Your task to perform on an android device: See recent photos Image 0: 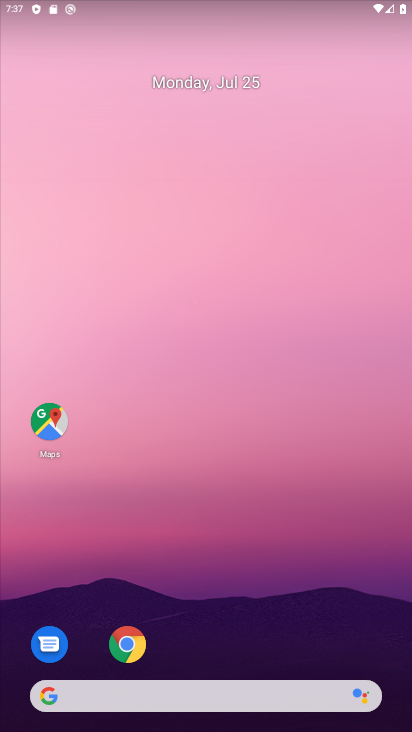
Step 0: drag from (200, 632) to (205, 14)
Your task to perform on an android device: See recent photos Image 1: 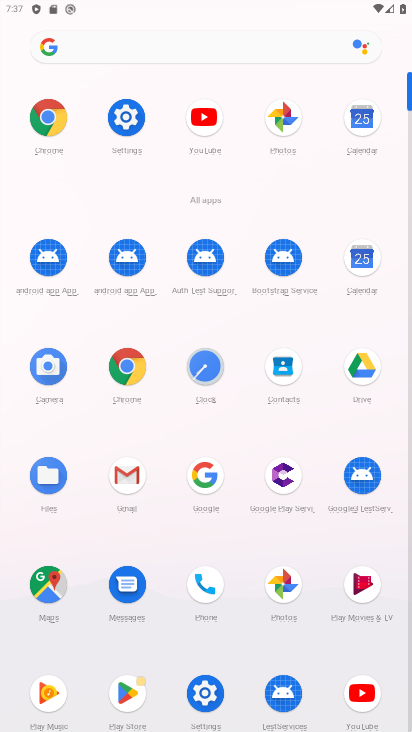
Step 1: click (283, 589)
Your task to perform on an android device: See recent photos Image 2: 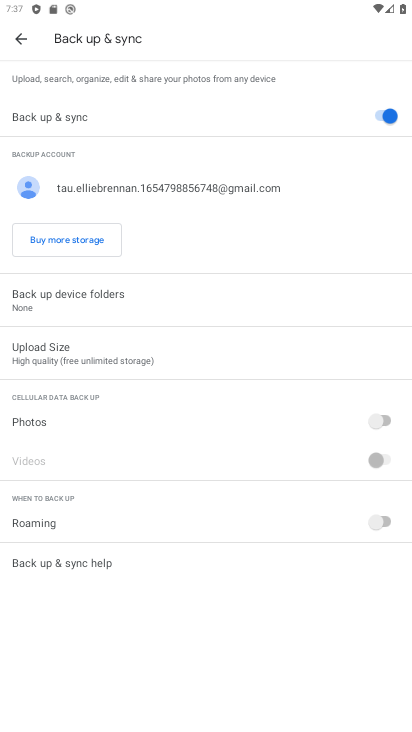
Step 2: click (12, 42)
Your task to perform on an android device: See recent photos Image 3: 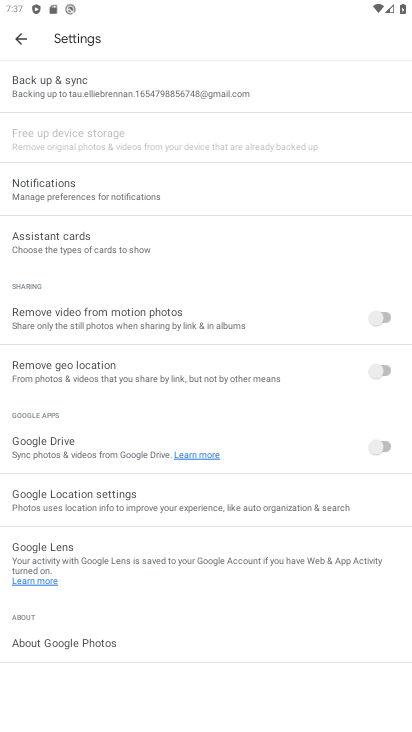
Step 3: click (12, 42)
Your task to perform on an android device: See recent photos Image 4: 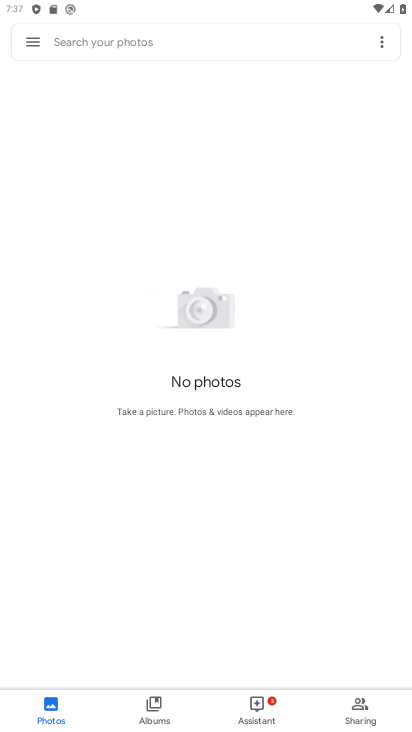
Step 4: task complete